Your task to perform on an android device: visit the assistant section in the google photos Image 0: 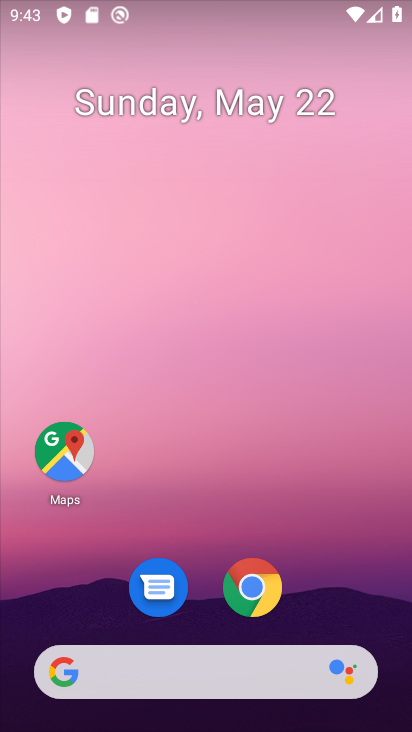
Step 0: drag from (265, 512) to (280, 84)
Your task to perform on an android device: visit the assistant section in the google photos Image 1: 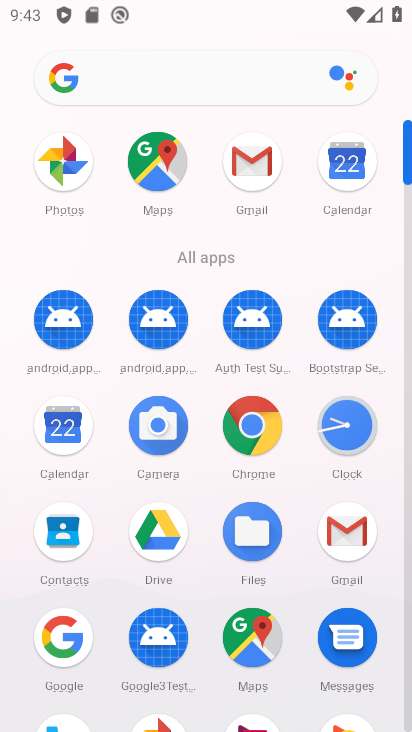
Step 1: click (68, 158)
Your task to perform on an android device: visit the assistant section in the google photos Image 2: 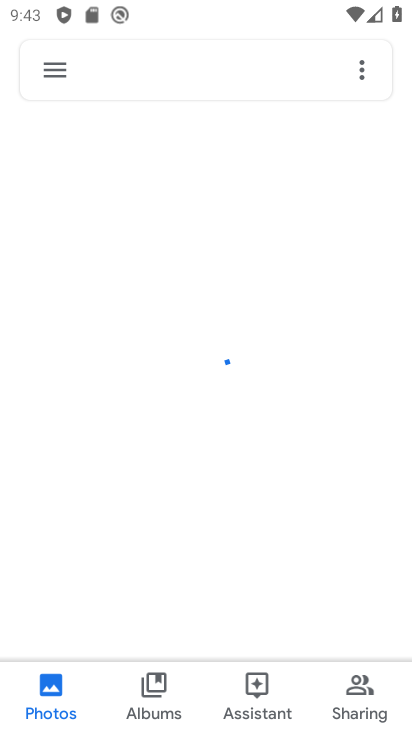
Step 2: click (250, 686)
Your task to perform on an android device: visit the assistant section in the google photos Image 3: 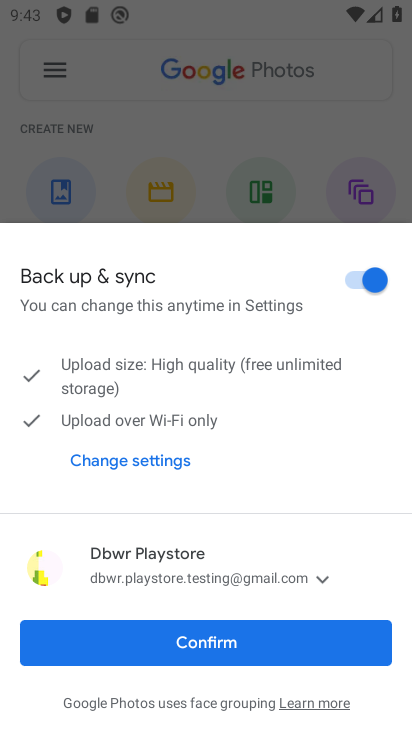
Step 3: click (274, 649)
Your task to perform on an android device: visit the assistant section in the google photos Image 4: 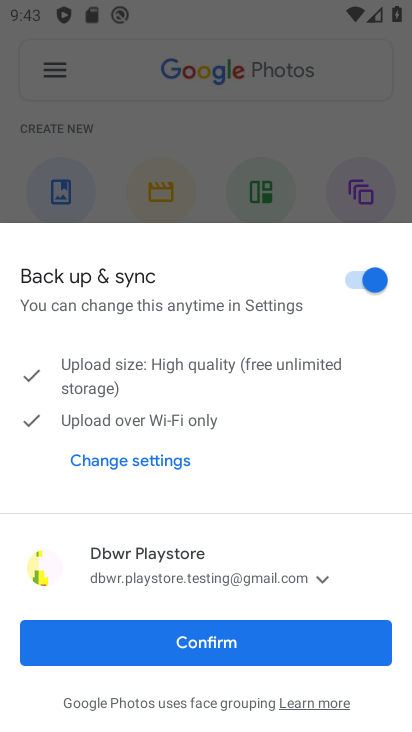
Step 4: click (274, 649)
Your task to perform on an android device: visit the assistant section in the google photos Image 5: 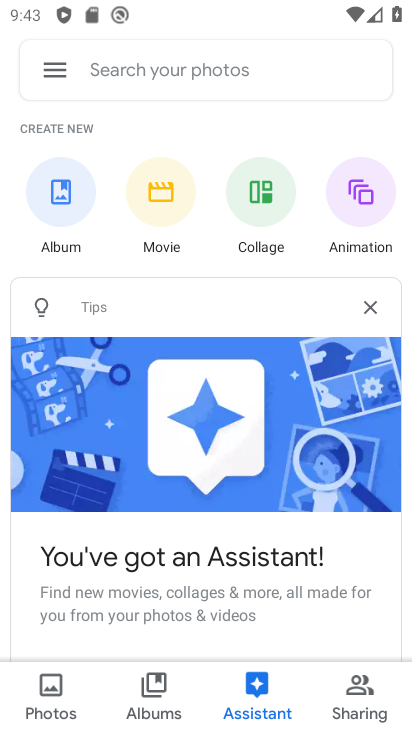
Step 5: task complete